Your task to perform on an android device: turn on the 24-hour format for clock Image 0: 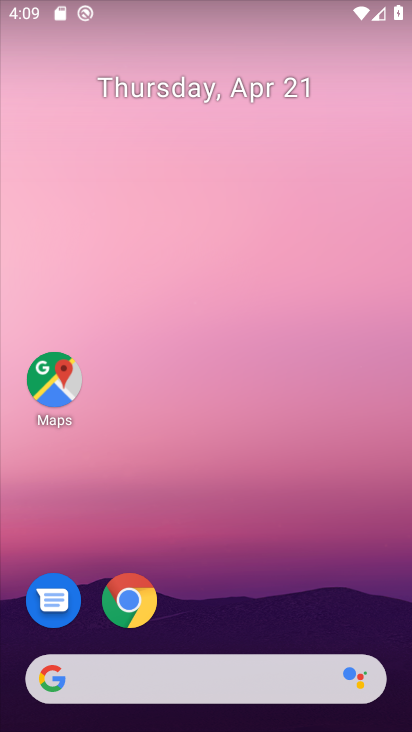
Step 0: drag from (374, 630) to (368, 48)
Your task to perform on an android device: turn on the 24-hour format for clock Image 1: 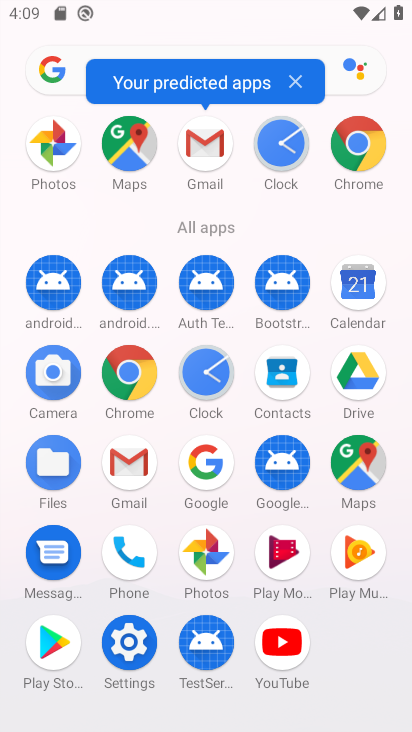
Step 1: click (278, 143)
Your task to perform on an android device: turn on the 24-hour format for clock Image 2: 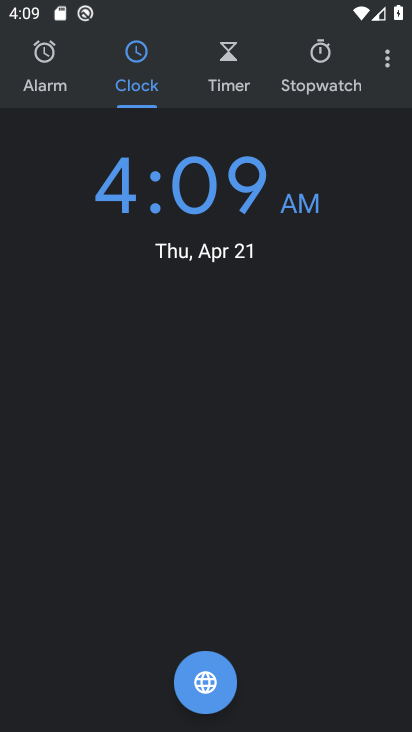
Step 2: click (387, 62)
Your task to perform on an android device: turn on the 24-hour format for clock Image 3: 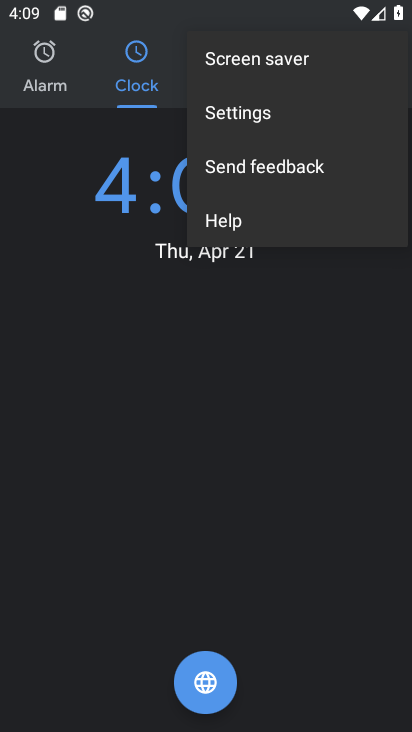
Step 3: click (264, 119)
Your task to perform on an android device: turn on the 24-hour format for clock Image 4: 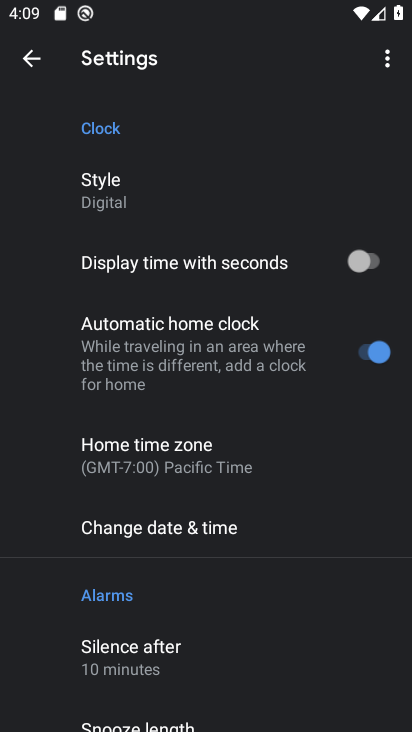
Step 4: click (204, 537)
Your task to perform on an android device: turn on the 24-hour format for clock Image 5: 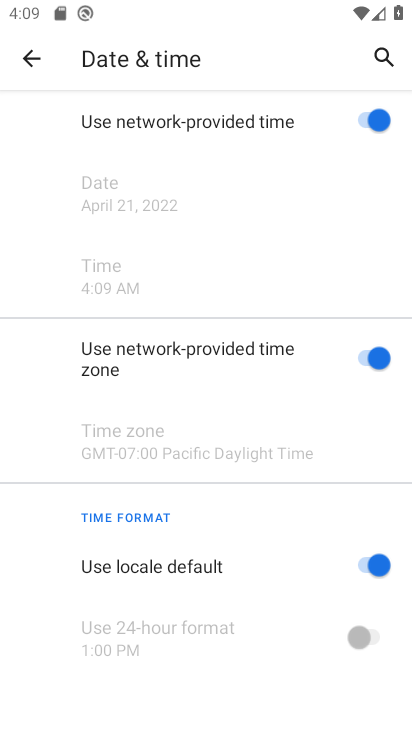
Step 5: click (398, 562)
Your task to perform on an android device: turn on the 24-hour format for clock Image 6: 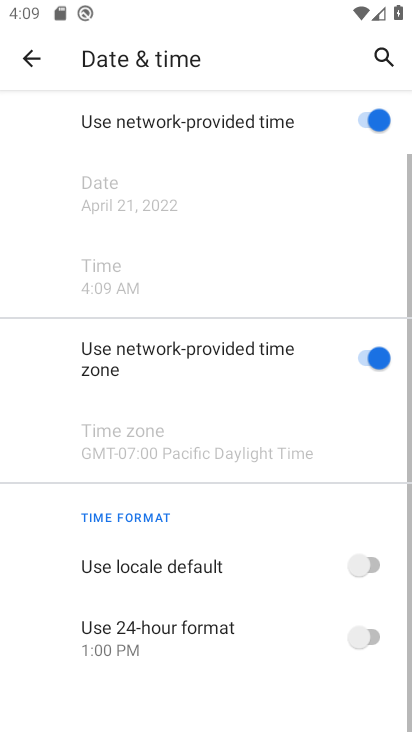
Step 6: click (357, 637)
Your task to perform on an android device: turn on the 24-hour format for clock Image 7: 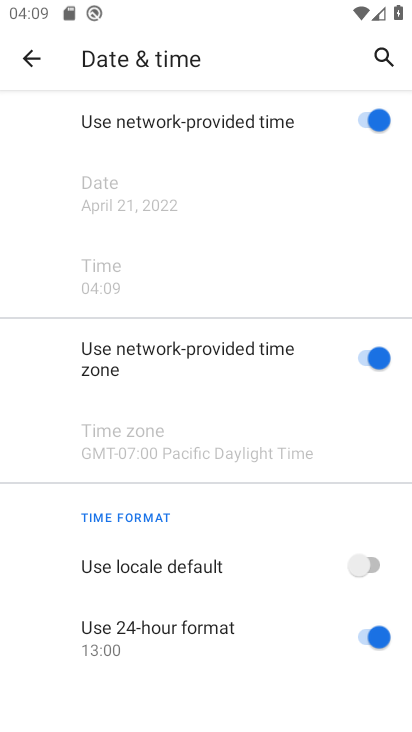
Step 7: task complete